Your task to perform on an android device: toggle pop-ups in chrome Image 0: 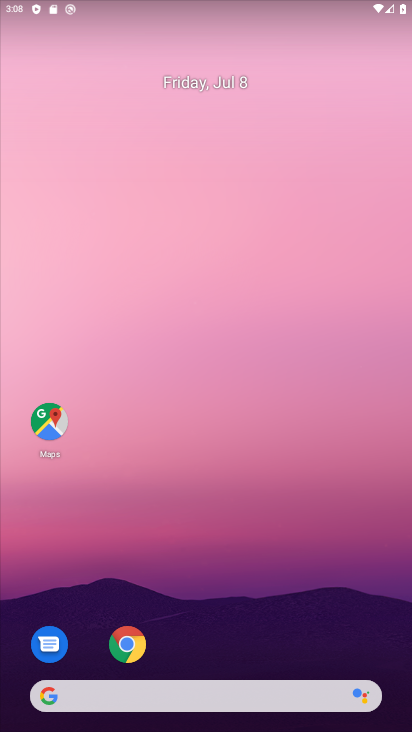
Step 0: click (120, 648)
Your task to perform on an android device: toggle pop-ups in chrome Image 1: 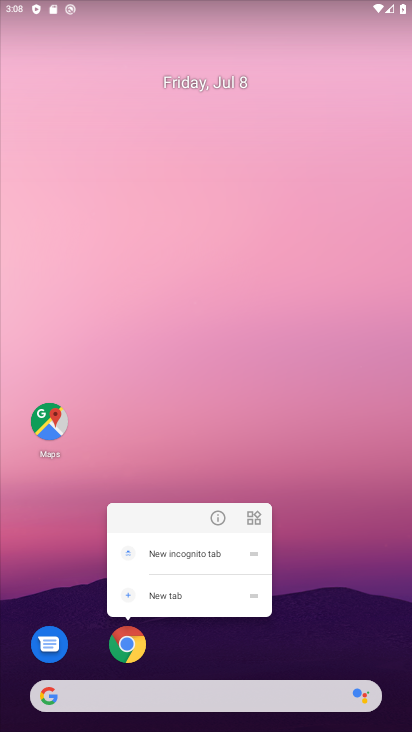
Step 1: click (118, 642)
Your task to perform on an android device: toggle pop-ups in chrome Image 2: 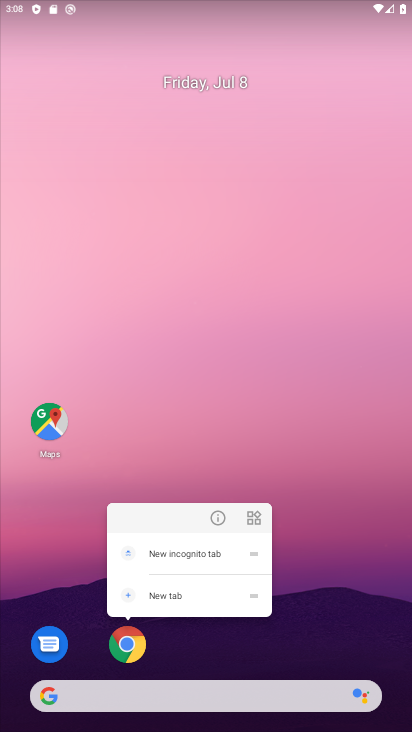
Step 2: task complete